Your task to perform on an android device: turn off javascript in the chrome app Image 0: 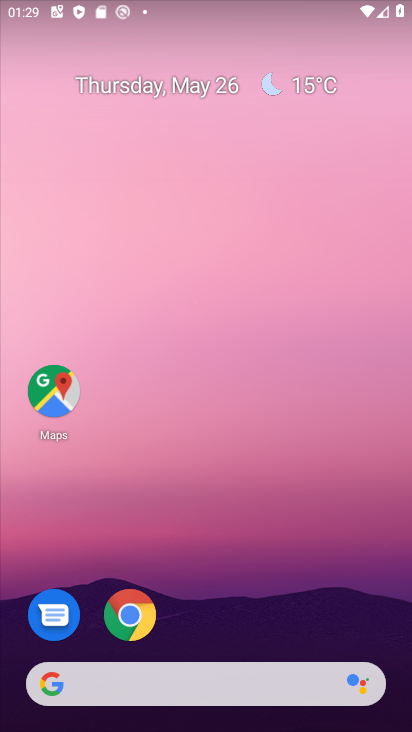
Step 0: click (137, 614)
Your task to perform on an android device: turn off javascript in the chrome app Image 1: 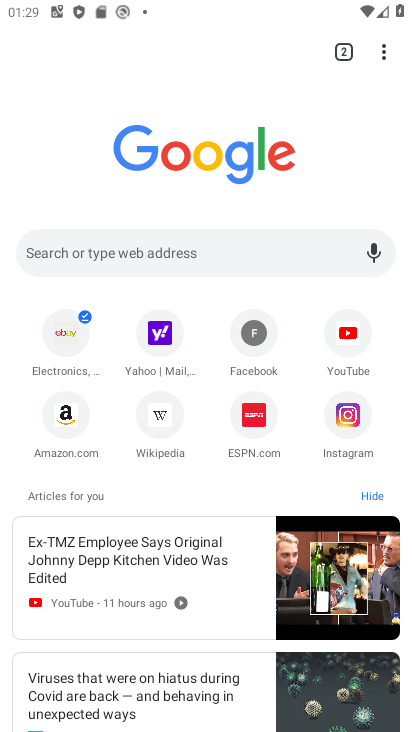
Step 1: drag from (383, 54) to (199, 442)
Your task to perform on an android device: turn off javascript in the chrome app Image 2: 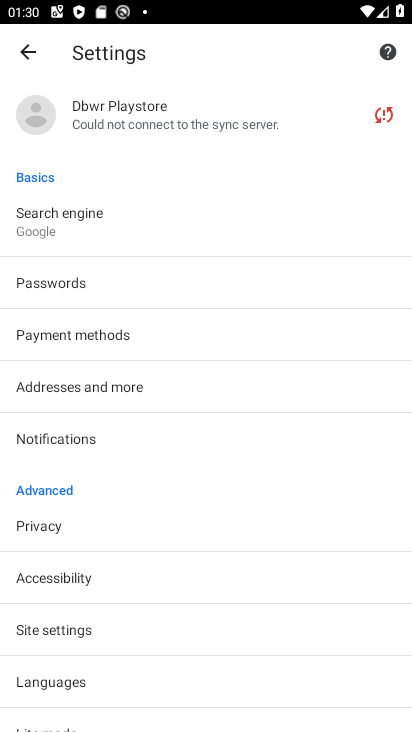
Step 2: click (67, 618)
Your task to perform on an android device: turn off javascript in the chrome app Image 3: 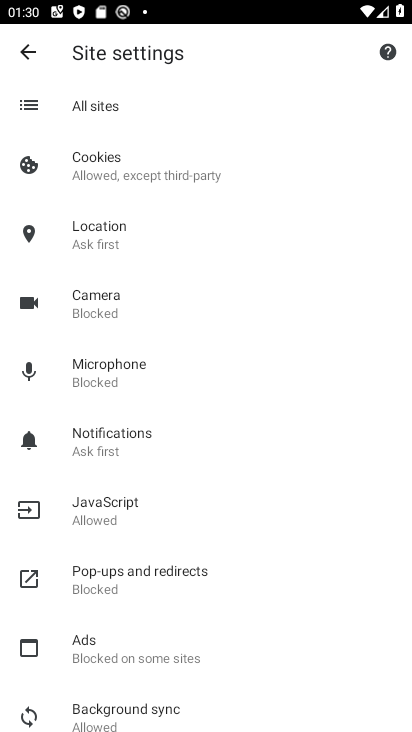
Step 3: click (123, 511)
Your task to perform on an android device: turn off javascript in the chrome app Image 4: 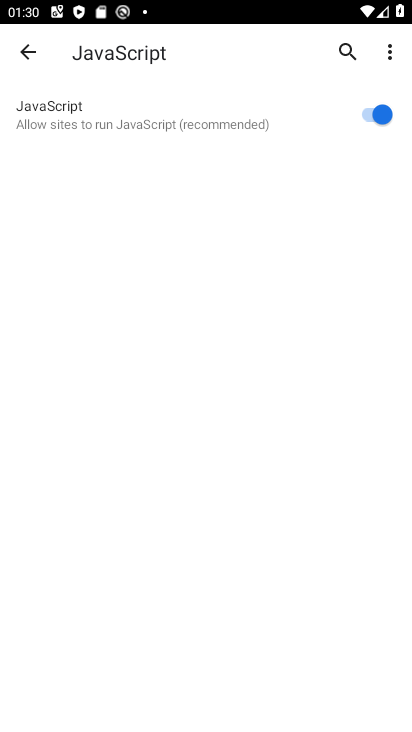
Step 4: click (369, 106)
Your task to perform on an android device: turn off javascript in the chrome app Image 5: 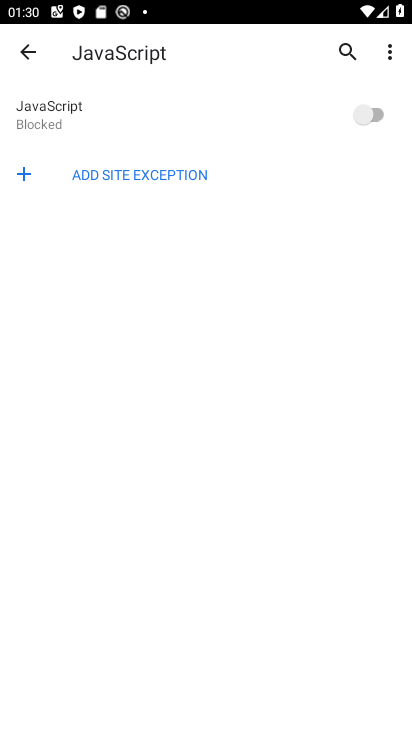
Step 5: task complete